Your task to perform on an android device: change notifications settings Image 0: 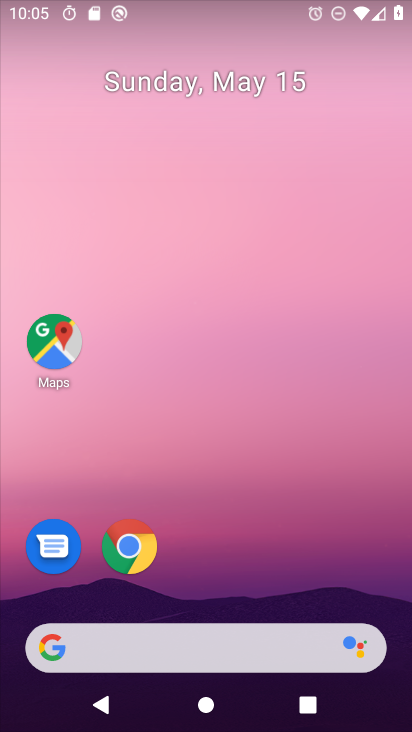
Step 0: drag from (226, 532) to (260, 71)
Your task to perform on an android device: change notifications settings Image 1: 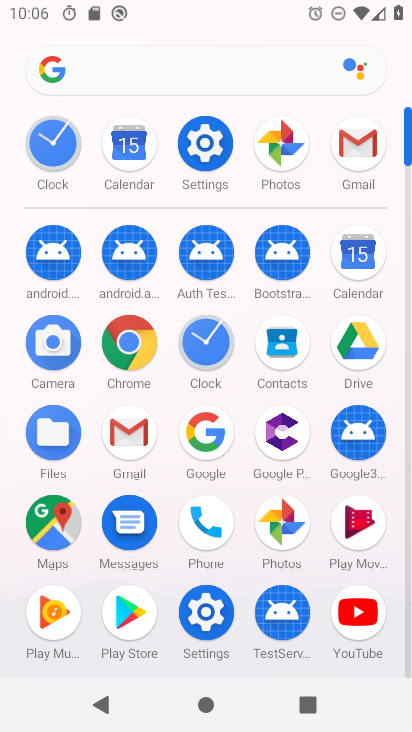
Step 1: click (209, 136)
Your task to perform on an android device: change notifications settings Image 2: 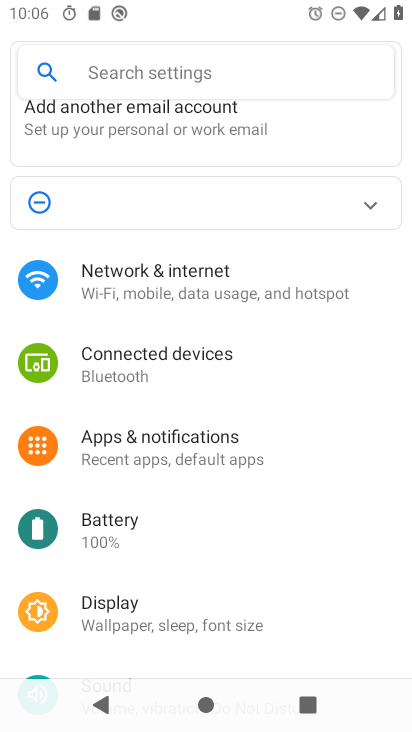
Step 2: click (200, 445)
Your task to perform on an android device: change notifications settings Image 3: 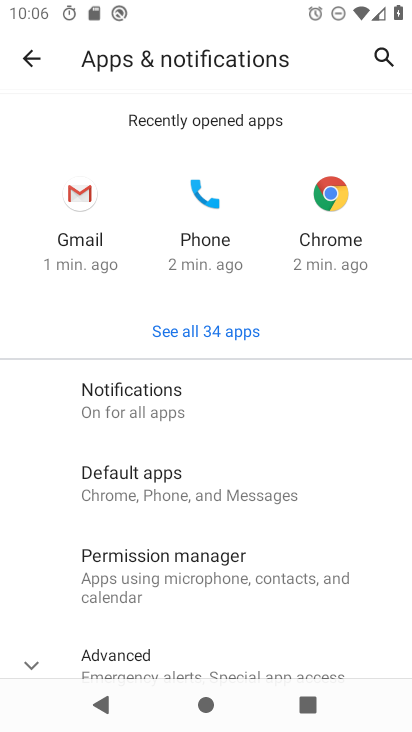
Step 3: click (177, 398)
Your task to perform on an android device: change notifications settings Image 4: 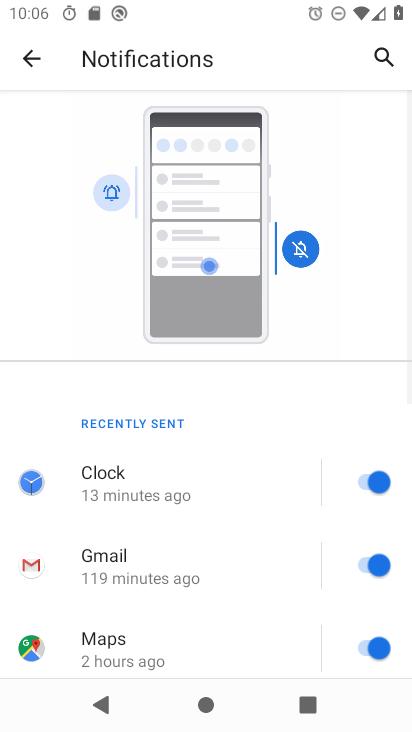
Step 4: drag from (236, 568) to (287, 262)
Your task to perform on an android device: change notifications settings Image 5: 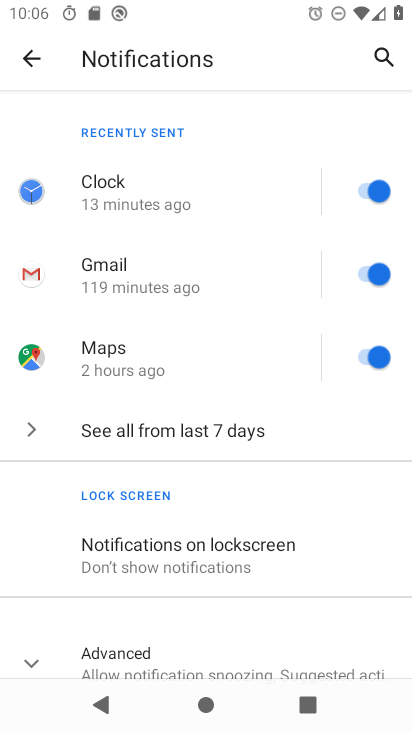
Step 5: click (242, 427)
Your task to perform on an android device: change notifications settings Image 6: 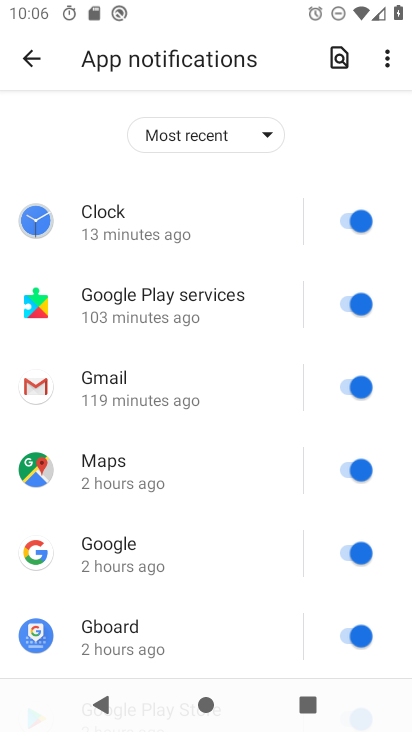
Step 6: click (336, 211)
Your task to perform on an android device: change notifications settings Image 7: 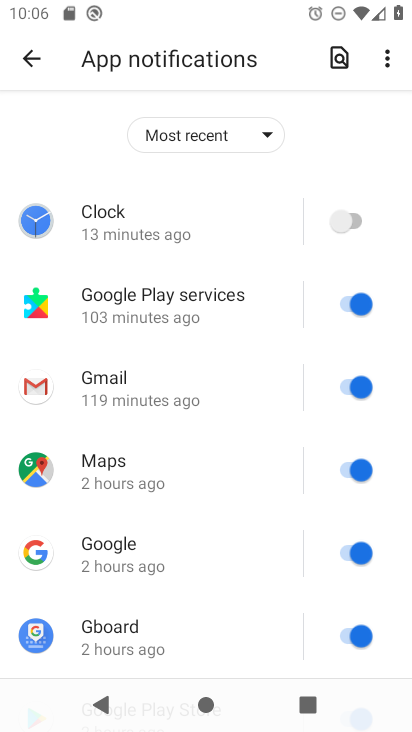
Step 7: click (344, 300)
Your task to perform on an android device: change notifications settings Image 8: 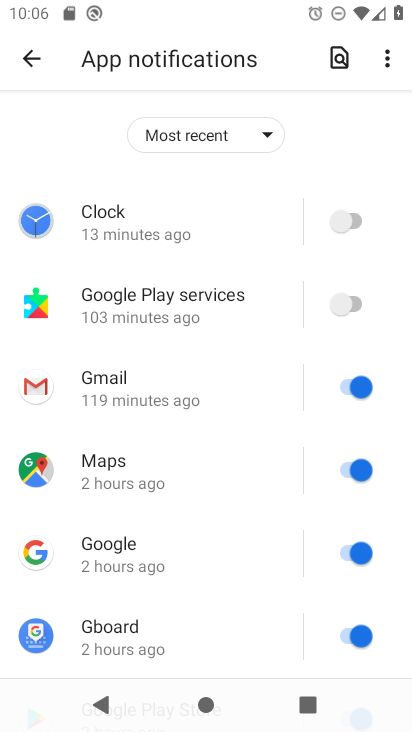
Step 8: click (352, 378)
Your task to perform on an android device: change notifications settings Image 9: 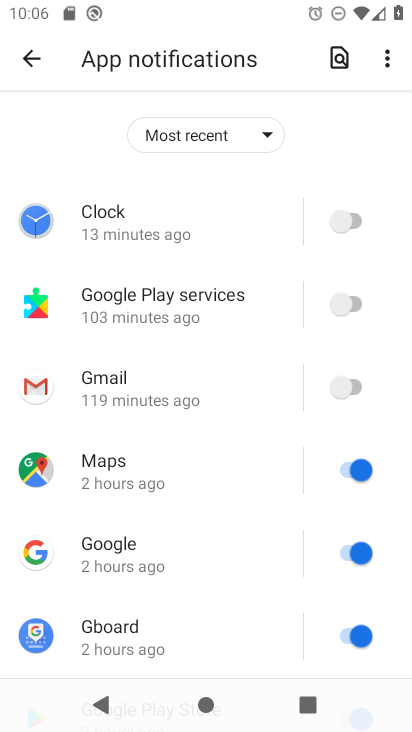
Step 9: click (352, 445)
Your task to perform on an android device: change notifications settings Image 10: 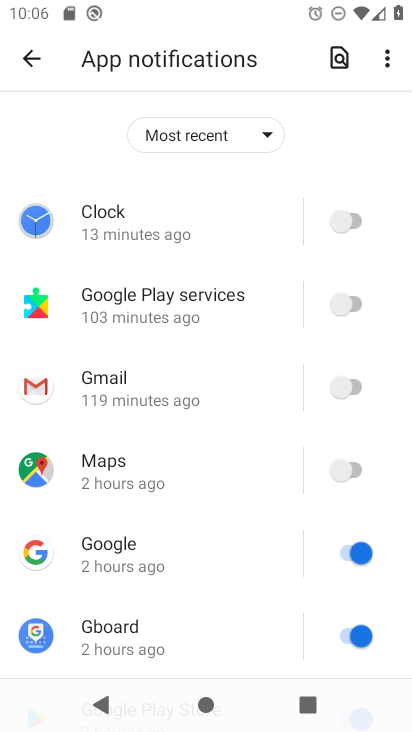
Step 10: click (352, 536)
Your task to perform on an android device: change notifications settings Image 11: 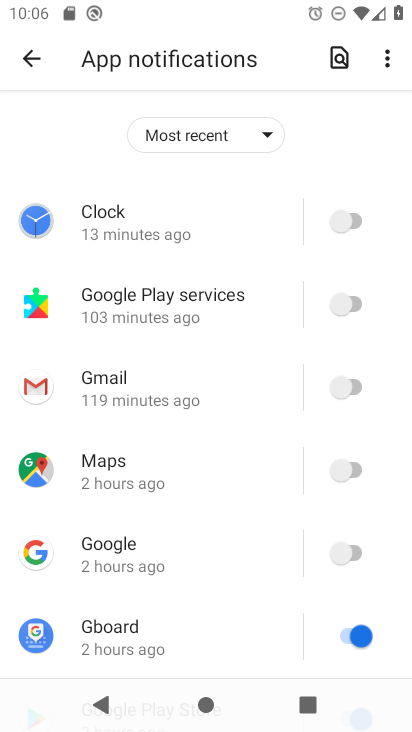
Step 11: click (347, 631)
Your task to perform on an android device: change notifications settings Image 12: 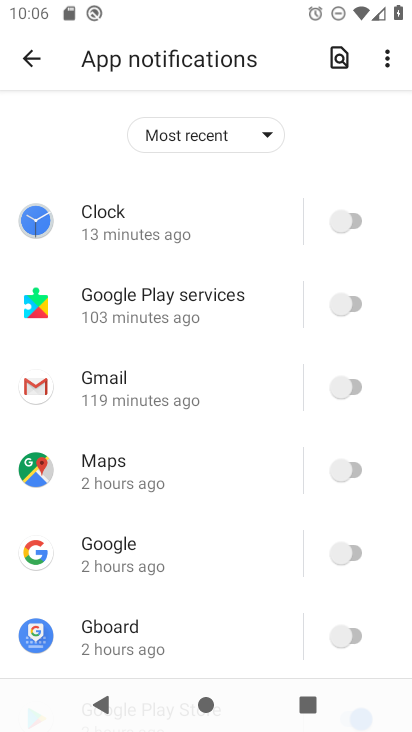
Step 12: drag from (243, 600) to (239, 425)
Your task to perform on an android device: change notifications settings Image 13: 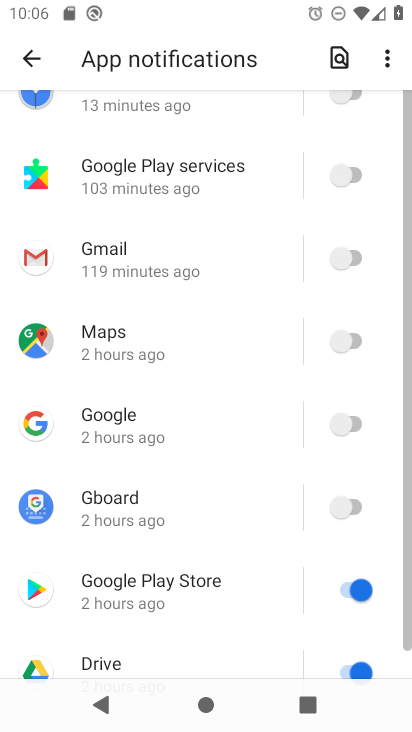
Step 13: drag from (246, 557) to (252, 182)
Your task to perform on an android device: change notifications settings Image 14: 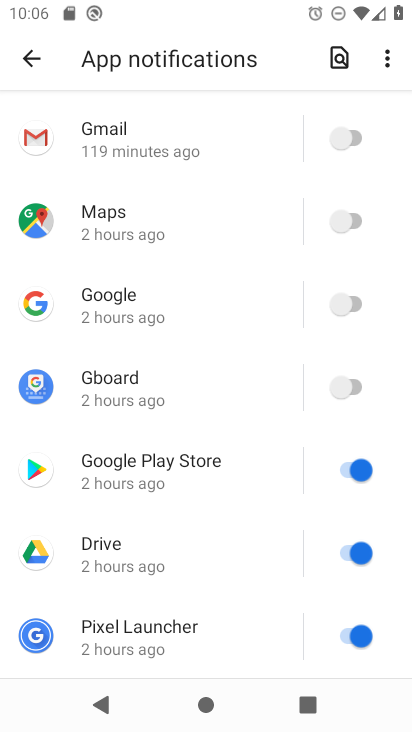
Step 14: click (353, 460)
Your task to perform on an android device: change notifications settings Image 15: 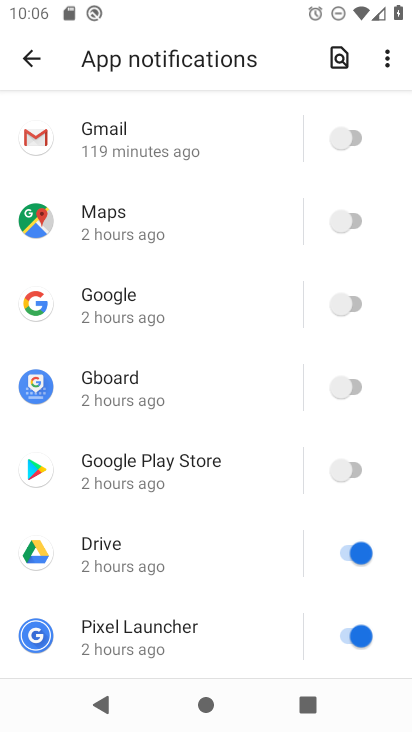
Step 15: click (355, 541)
Your task to perform on an android device: change notifications settings Image 16: 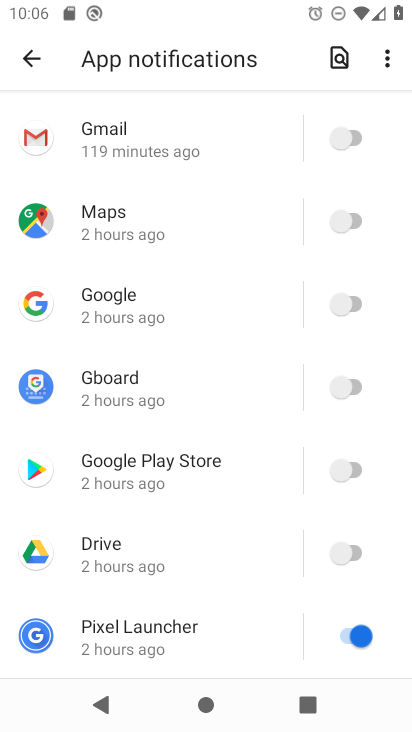
Step 16: click (348, 627)
Your task to perform on an android device: change notifications settings Image 17: 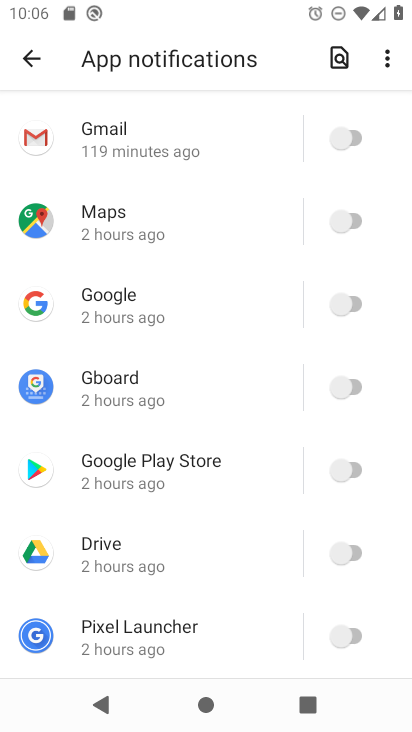
Step 17: task complete